Your task to perform on an android device: Go to Wikipedia Image 0: 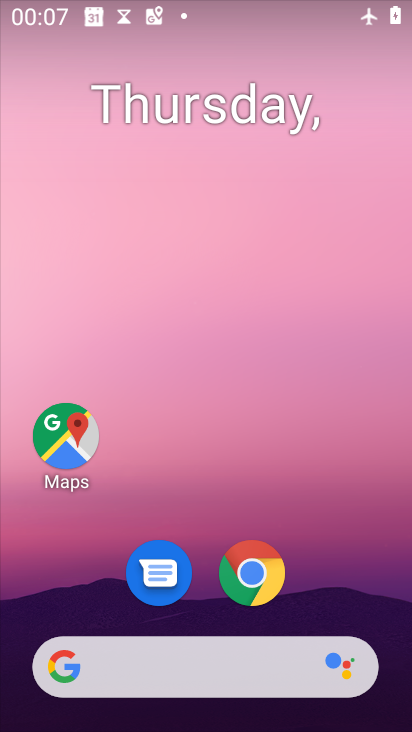
Step 0: click (236, 572)
Your task to perform on an android device: Go to Wikipedia Image 1: 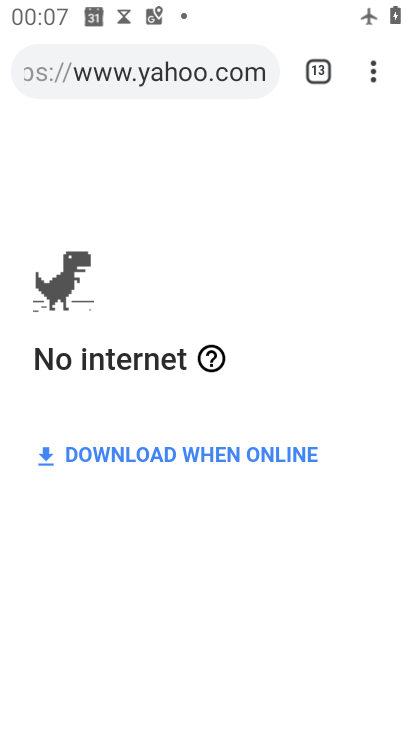
Step 1: click (370, 70)
Your task to perform on an android device: Go to Wikipedia Image 2: 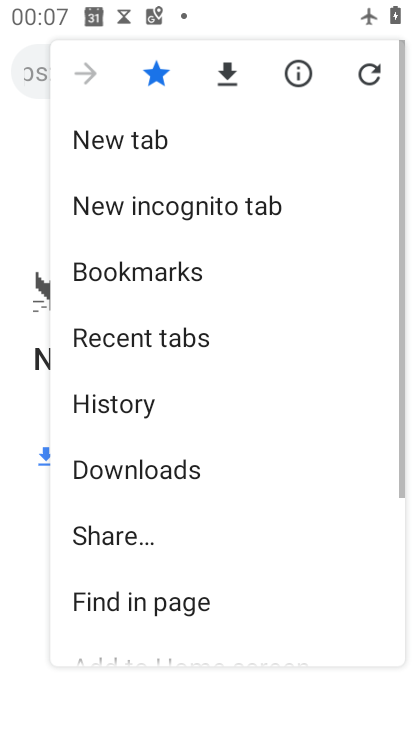
Step 2: click (153, 140)
Your task to perform on an android device: Go to Wikipedia Image 3: 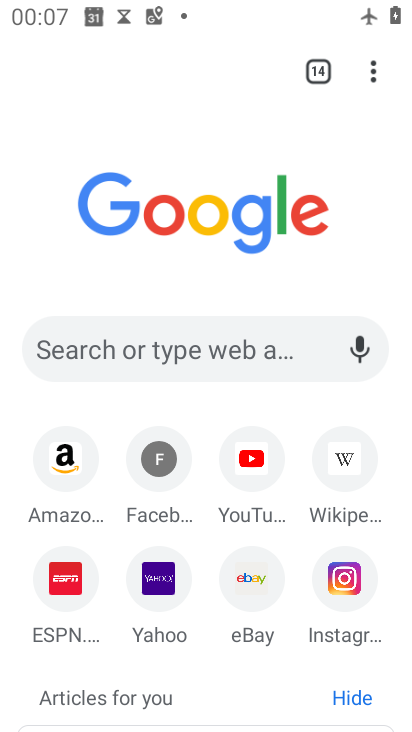
Step 3: click (333, 457)
Your task to perform on an android device: Go to Wikipedia Image 4: 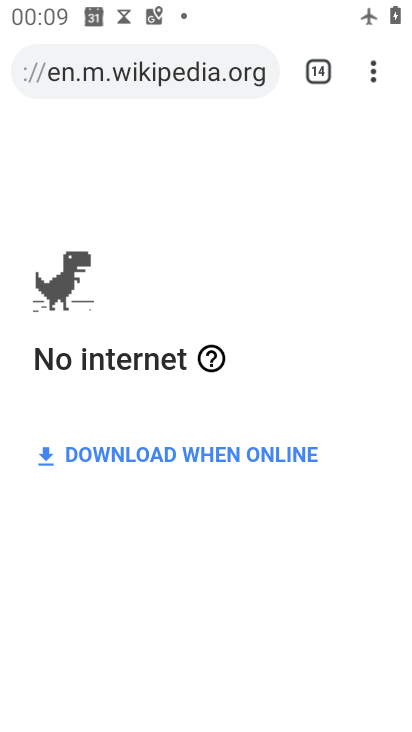
Step 4: task complete